Your task to perform on an android device: turn off airplane mode Image 0: 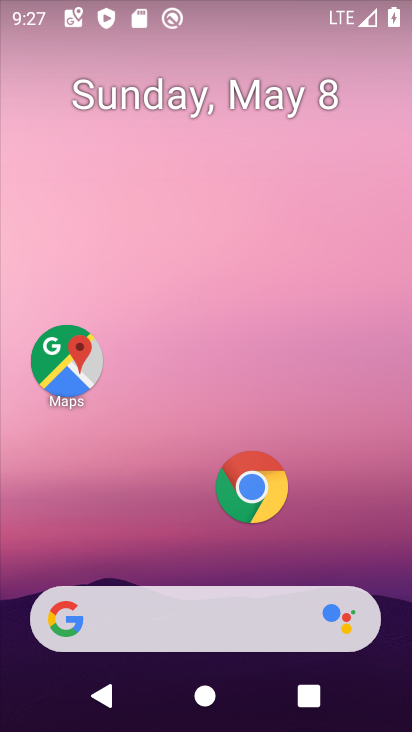
Step 0: drag from (212, 520) to (291, 1)
Your task to perform on an android device: turn off airplane mode Image 1: 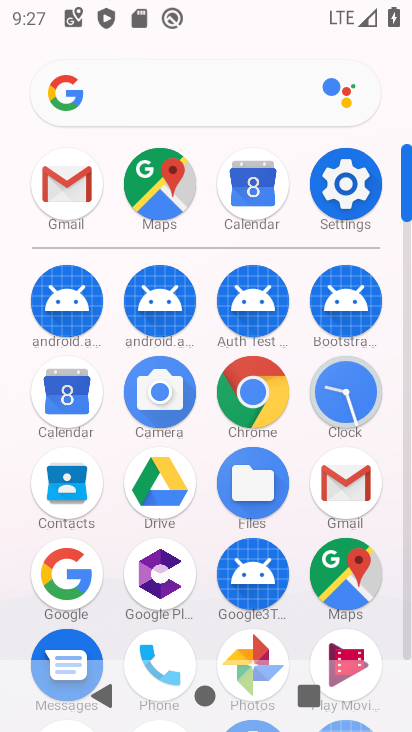
Step 1: click (346, 198)
Your task to perform on an android device: turn off airplane mode Image 2: 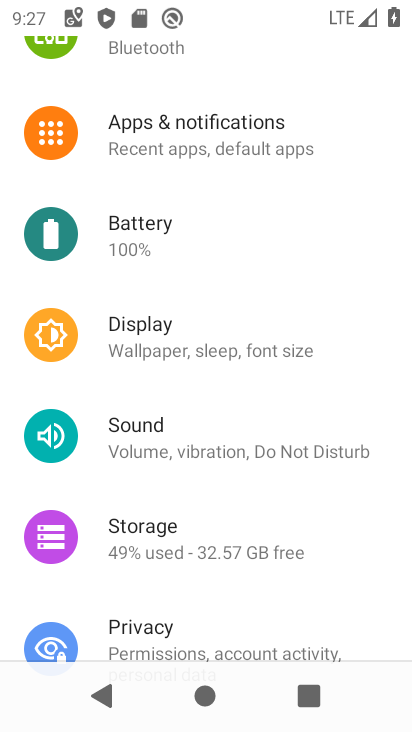
Step 2: drag from (246, 285) to (240, 671)
Your task to perform on an android device: turn off airplane mode Image 3: 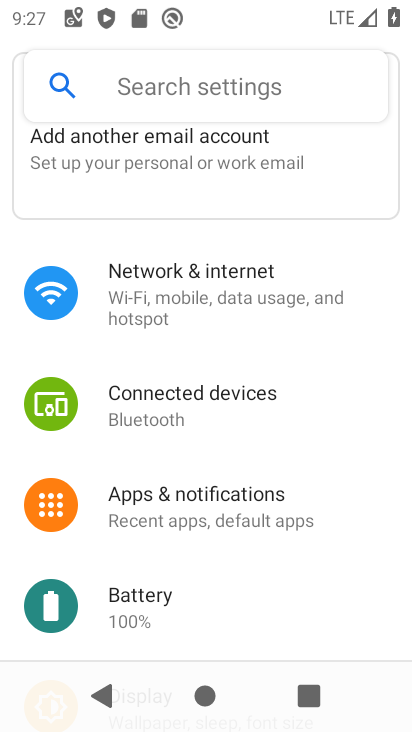
Step 3: click (241, 268)
Your task to perform on an android device: turn off airplane mode Image 4: 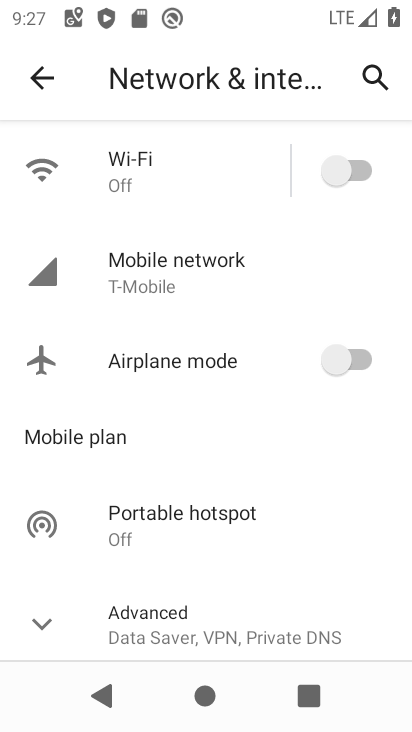
Step 4: task complete